Your task to perform on an android device: Open Google Chrome and click the shortcut for Amazon.com Image 0: 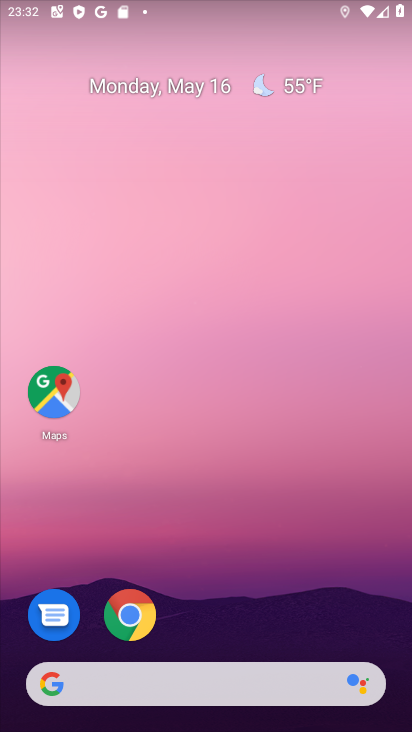
Step 0: drag from (202, 634) to (281, 7)
Your task to perform on an android device: Open Google Chrome and click the shortcut for Amazon.com Image 1: 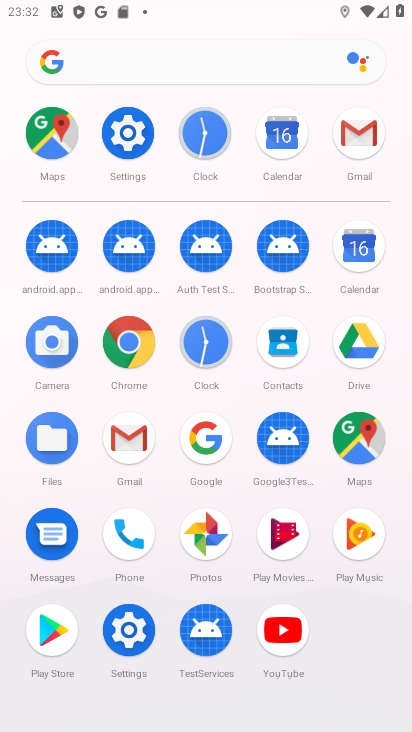
Step 1: click (131, 336)
Your task to perform on an android device: Open Google Chrome and click the shortcut for Amazon.com Image 2: 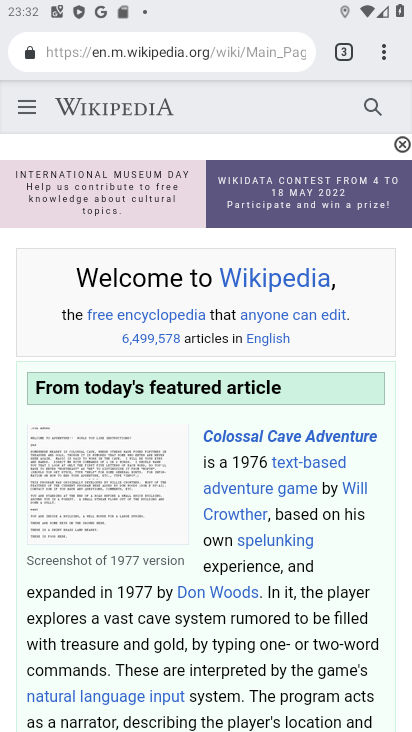
Step 2: click (332, 49)
Your task to perform on an android device: Open Google Chrome and click the shortcut for Amazon.com Image 3: 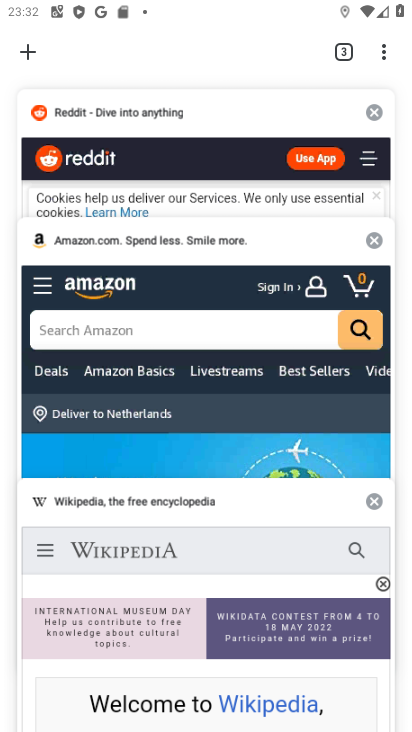
Step 3: click (30, 57)
Your task to perform on an android device: Open Google Chrome and click the shortcut for Amazon.com Image 4: 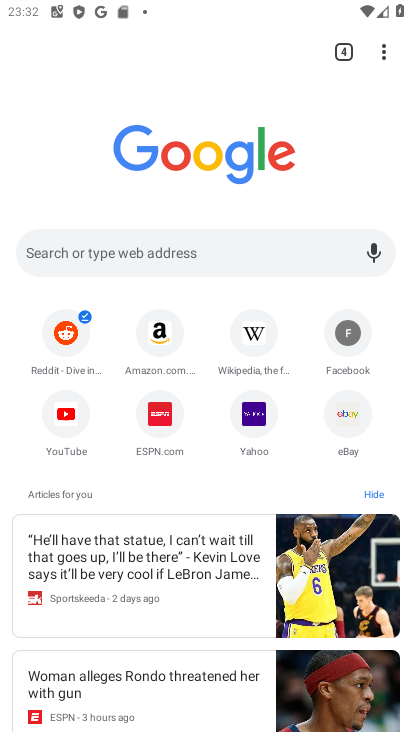
Step 4: click (160, 340)
Your task to perform on an android device: Open Google Chrome and click the shortcut for Amazon.com Image 5: 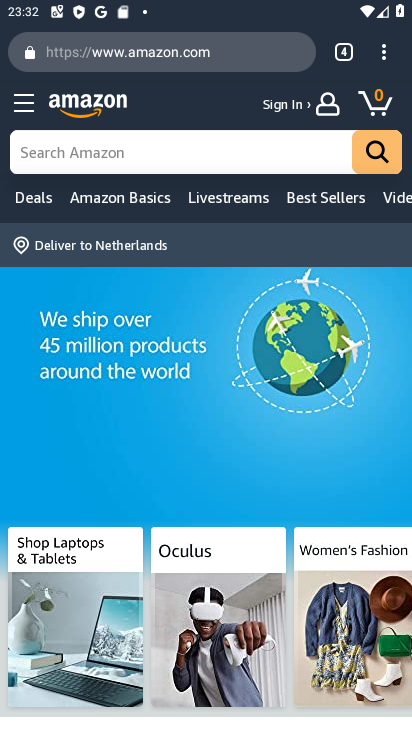
Step 5: task complete